Your task to perform on an android device: check out phone information Image 0: 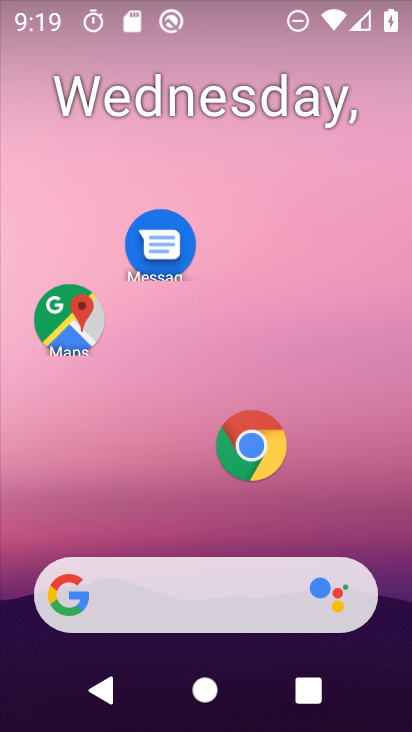
Step 0: drag from (220, 533) to (269, 15)
Your task to perform on an android device: check out phone information Image 1: 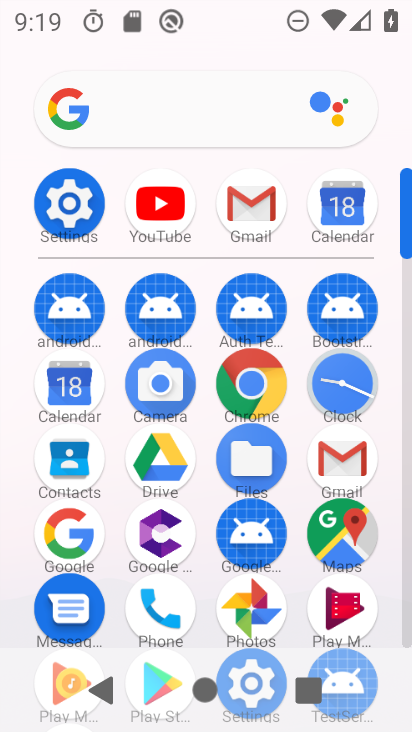
Step 1: click (66, 196)
Your task to perform on an android device: check out phone information Image 2: 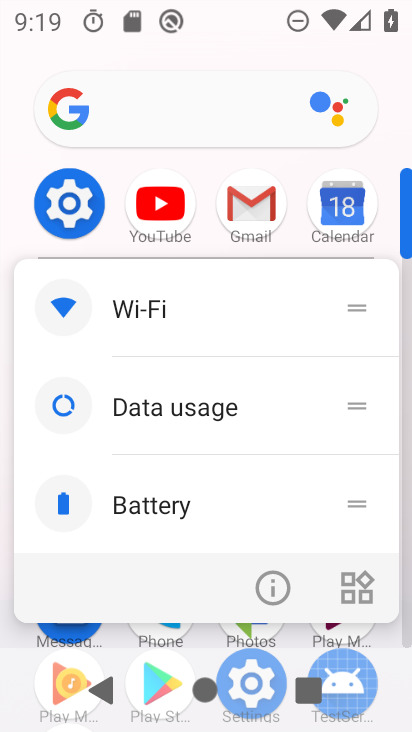
Step 2: click (63, 196)
Your task to perform on an android device: check out phone information Image 3: 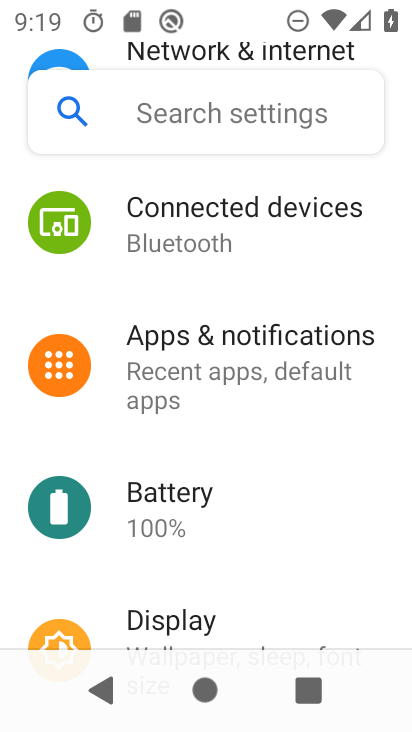
Step 3: drag from (232, 563) to (262, 44)
Your task to perform on an android device: check out phone information Image 4: 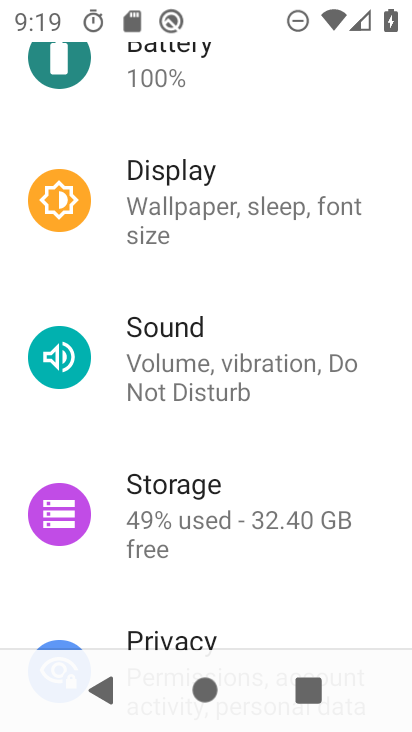
Step 4: drag from (214, 576) to (239, 83)
Your task to perform on an android device: check out phone information Image 5: 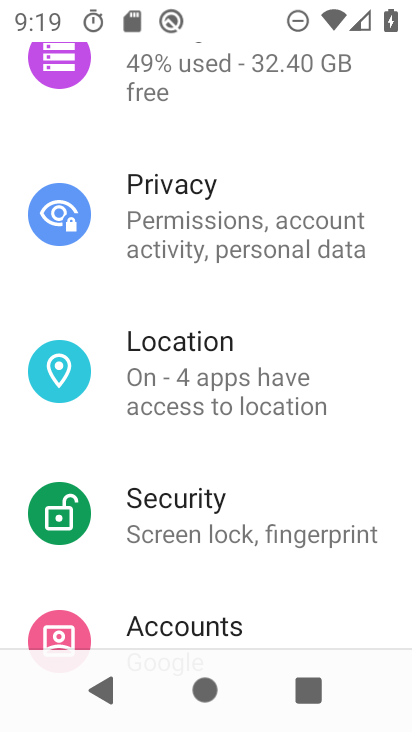
Step 5: drag from (194, 582) to (218, 51)
Your task to perform on an android device: check out phone information Image 6: 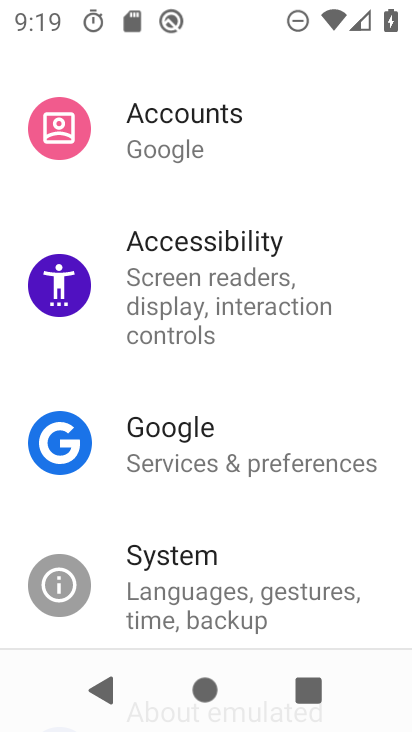
Step 6: drag from (217, 625) to (216, 66)
Your task to perform on an android device: check out phone information Image 7: 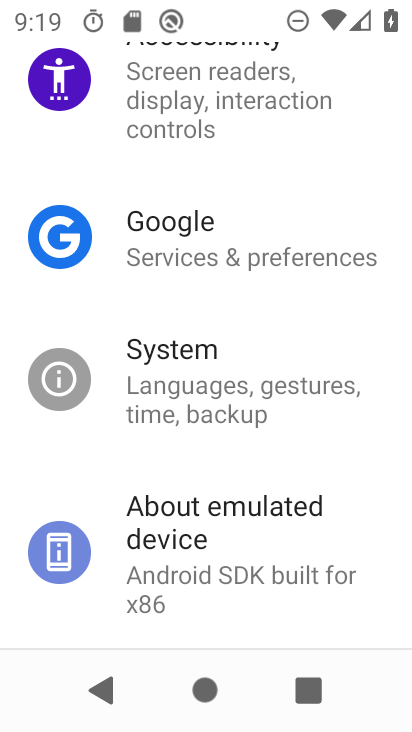
Step 7: click (204, 528)
Your task to perform on an android device: check out phone information Image 8: 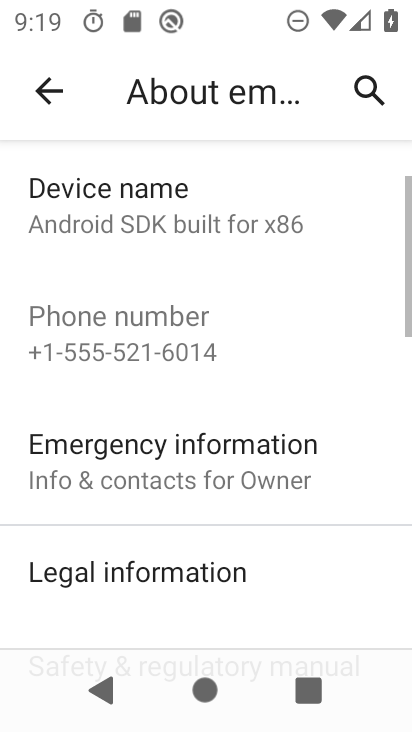
Step 8: task complete